Your task to perform on an android device: Go to Google maps Image 0: 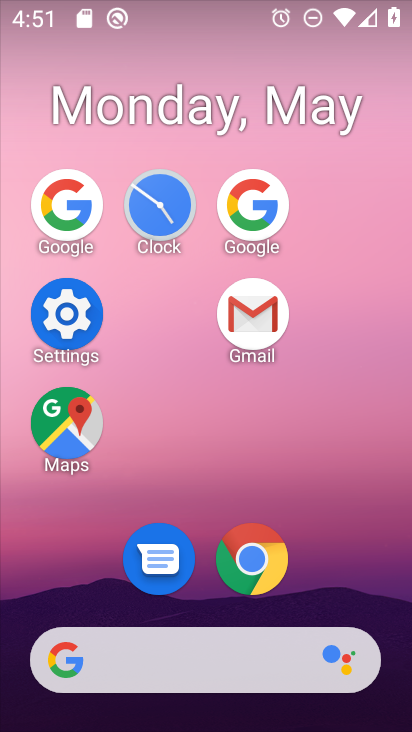
Step 0: click (66, 428)
Your task to perform on an android device: Go to Google maps Image 1: 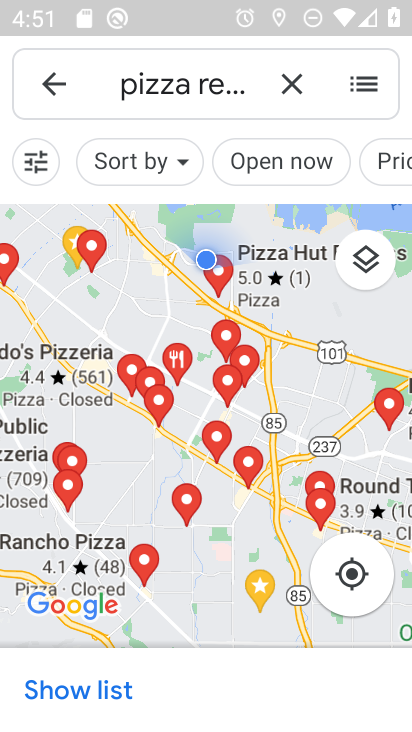
Step 1: task complete